Your task to perform on an android device: open chrome privacy settings Image 0: 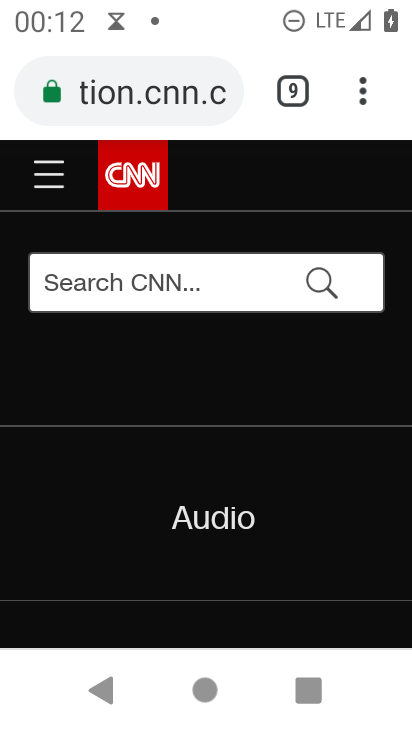
Step 0: press home button
Your task to perform on an android device: open chrome privacy settings Image 1: 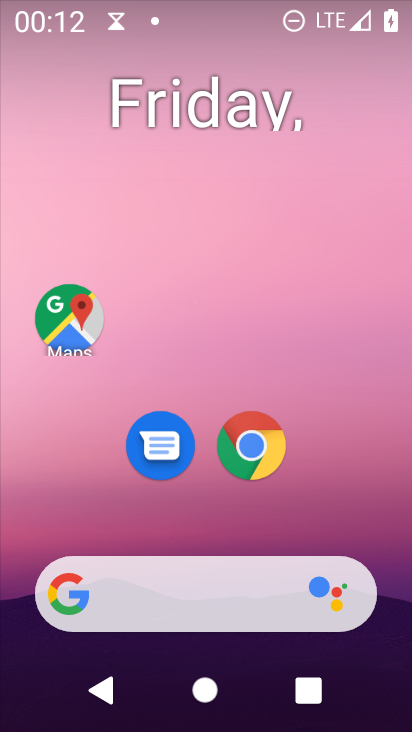
Step 1: click (245, 453)
Your task to perform on an android device: open chrome privacy settings Image 2: 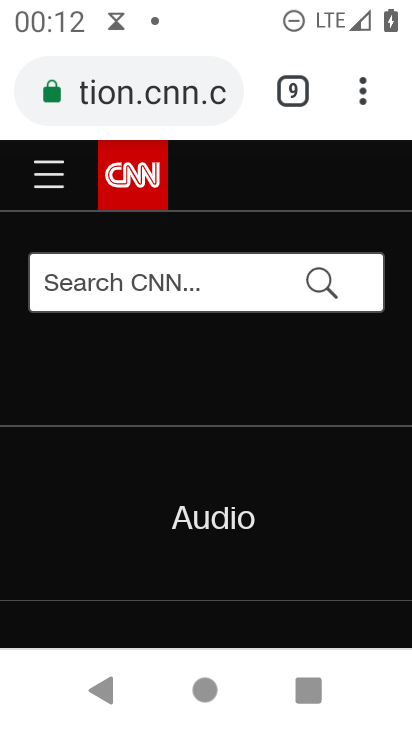
Step 2: click (363, 103)
Your task to perform on an android device: open chrome privacy settings Image 3: 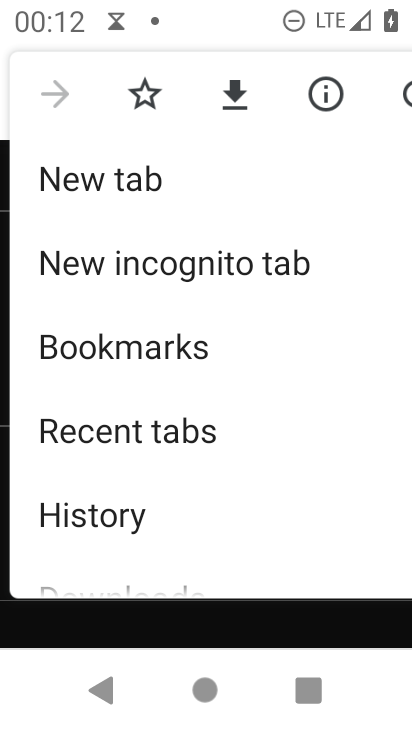
Step 3: drag from (108, 559) to (111, 151)
Your task to perform on an android device: open chrome privacy settings Image 4: 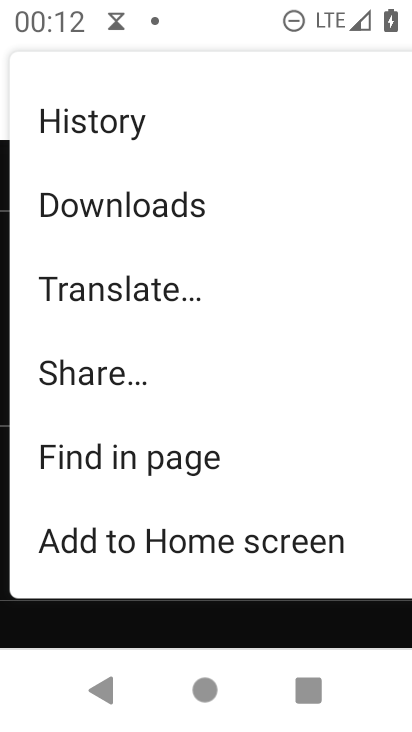
Step 4: drag from (155, 569) to (150, 135)
Your task to perform on an android device: open chrome privacy settings Image 5: 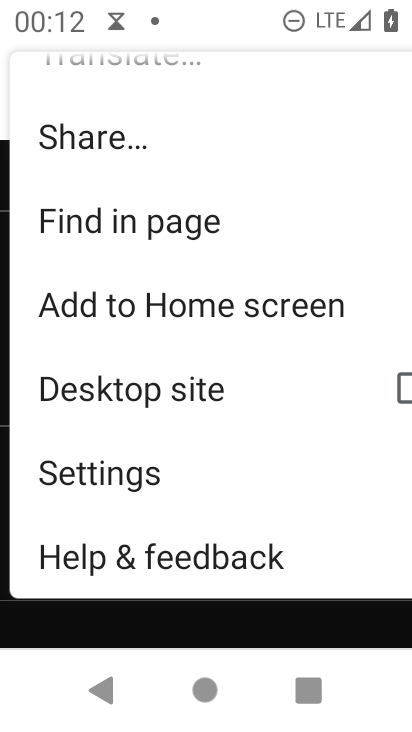
Step 5: click (121, 475)
Your task to perform on an android device: open chrome privacy settings Image 6: 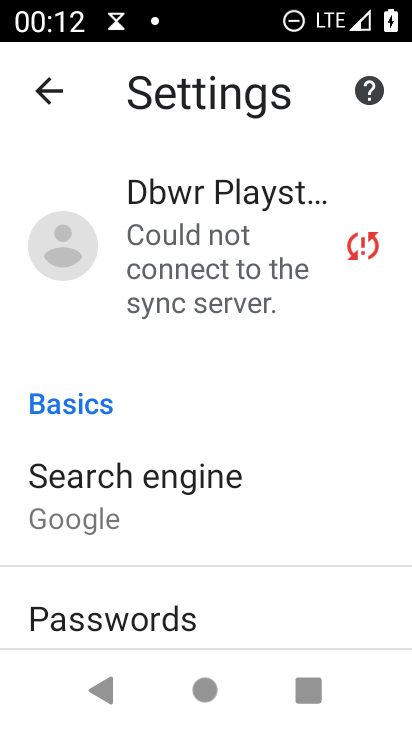
Step 6: drag from (238, 629) to (226, 172)
Your task to perform on an android device: open chrome privacy settings Image 7: 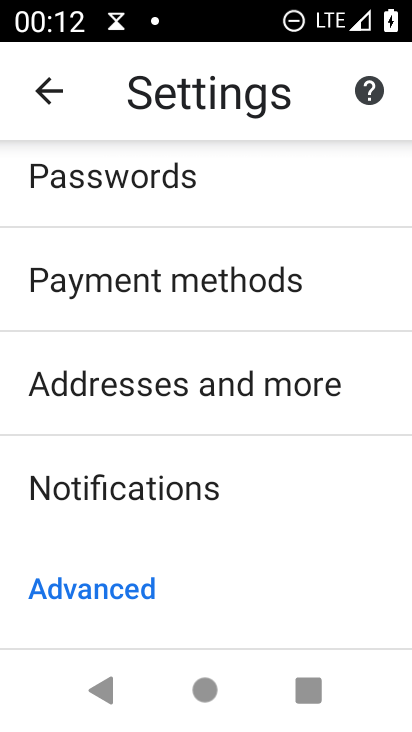
Step 7: drag from (220, 627) to (220, 215)
Your task to perform on an android device: open chrome privacy settings Image 8: 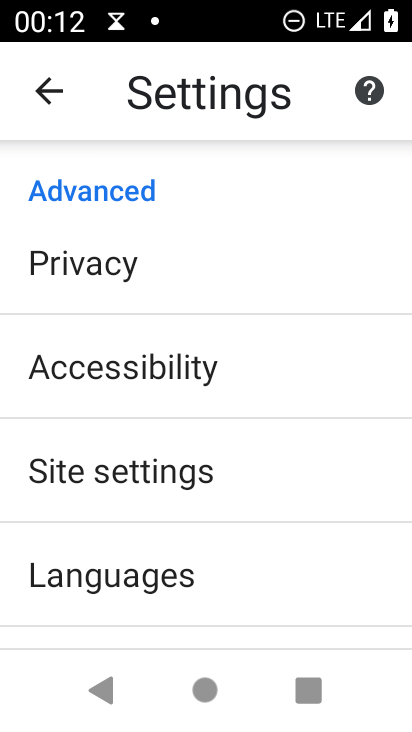
Step 8: click (92, 265)
Your task to perform on an android device: open chrome privacy settings Image 9: 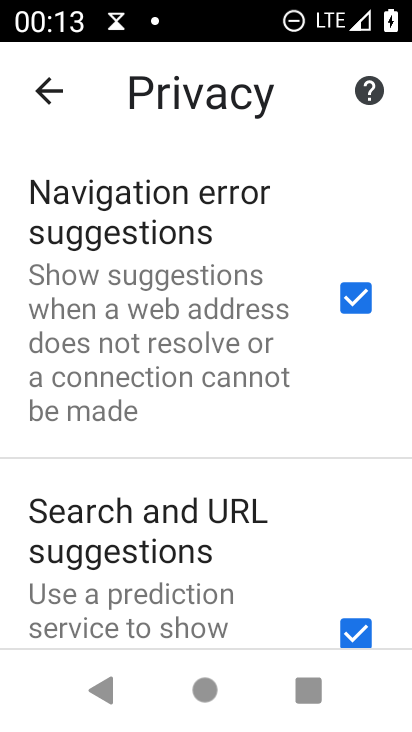
Step 9: task complete